Your task to perform on an android device: Add "macbook pro" to the cart on costco.com, then select checkout. Image 0: 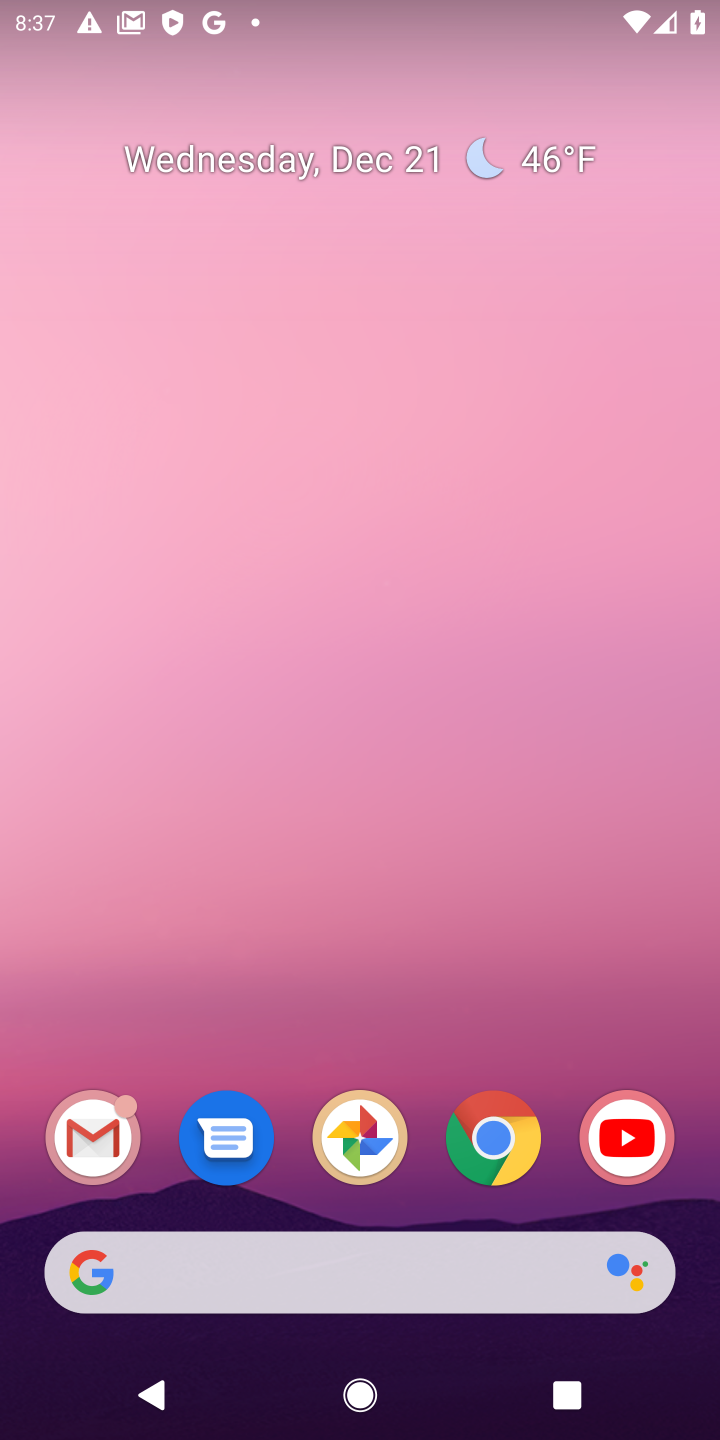
Step 0: click (496, 1144)
Your task to perform on an android device: Add "macbook pro" to the cart on costco.com, then select checkout. Image 1: 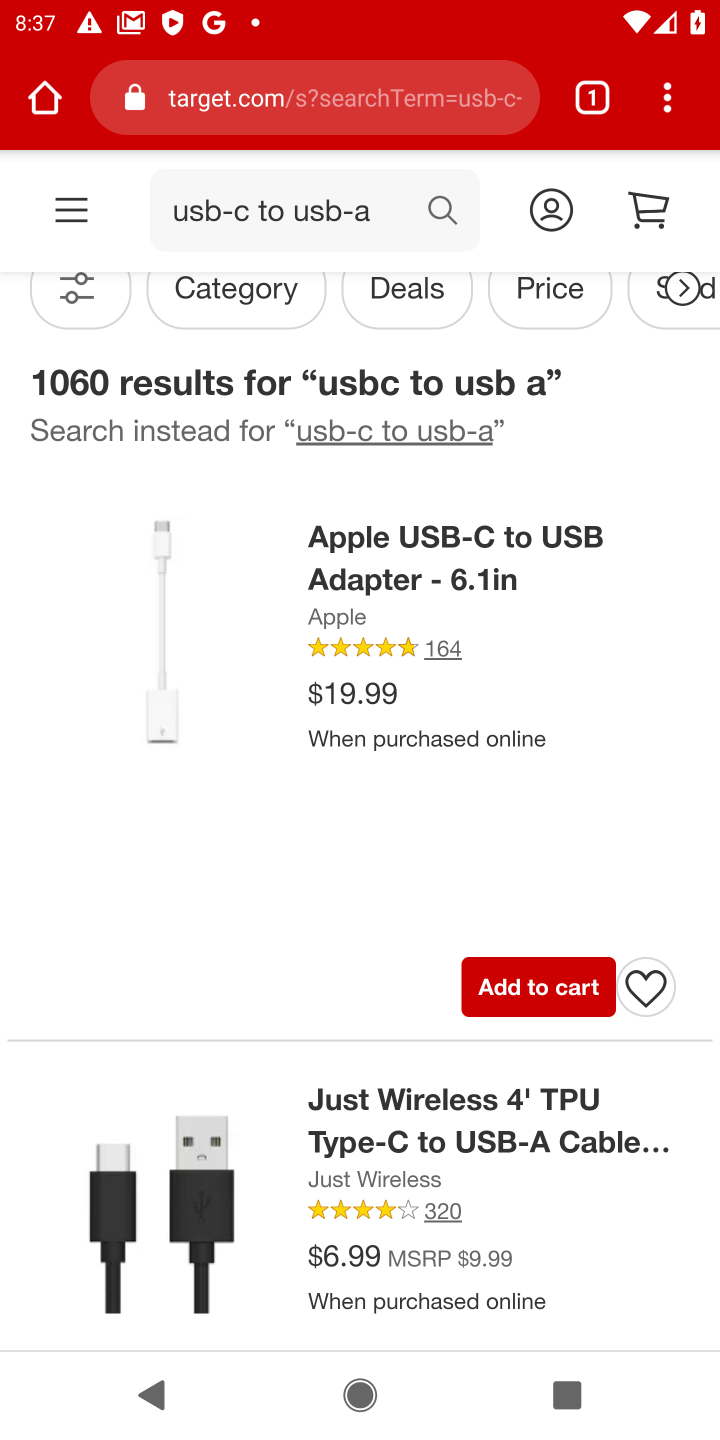
Step 1: click (291, 102)
Your task to perform on an android device: Add "macbook pro" to the cart on costco.com, then select checkout. Image 2: 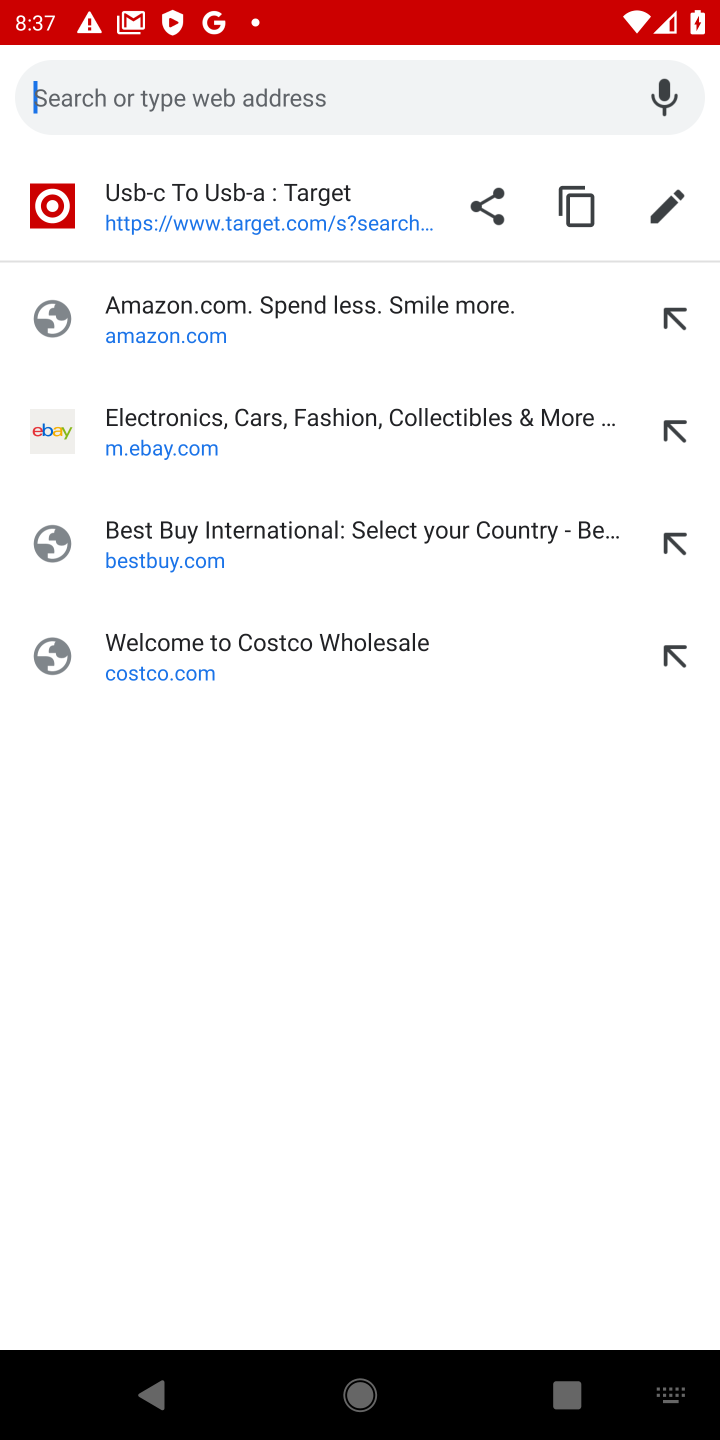
Step 2: click (124, 657)
Your task to perform on an android device: Add "macbook pro" to the cart on costco.com, then select checkout. Image 3: 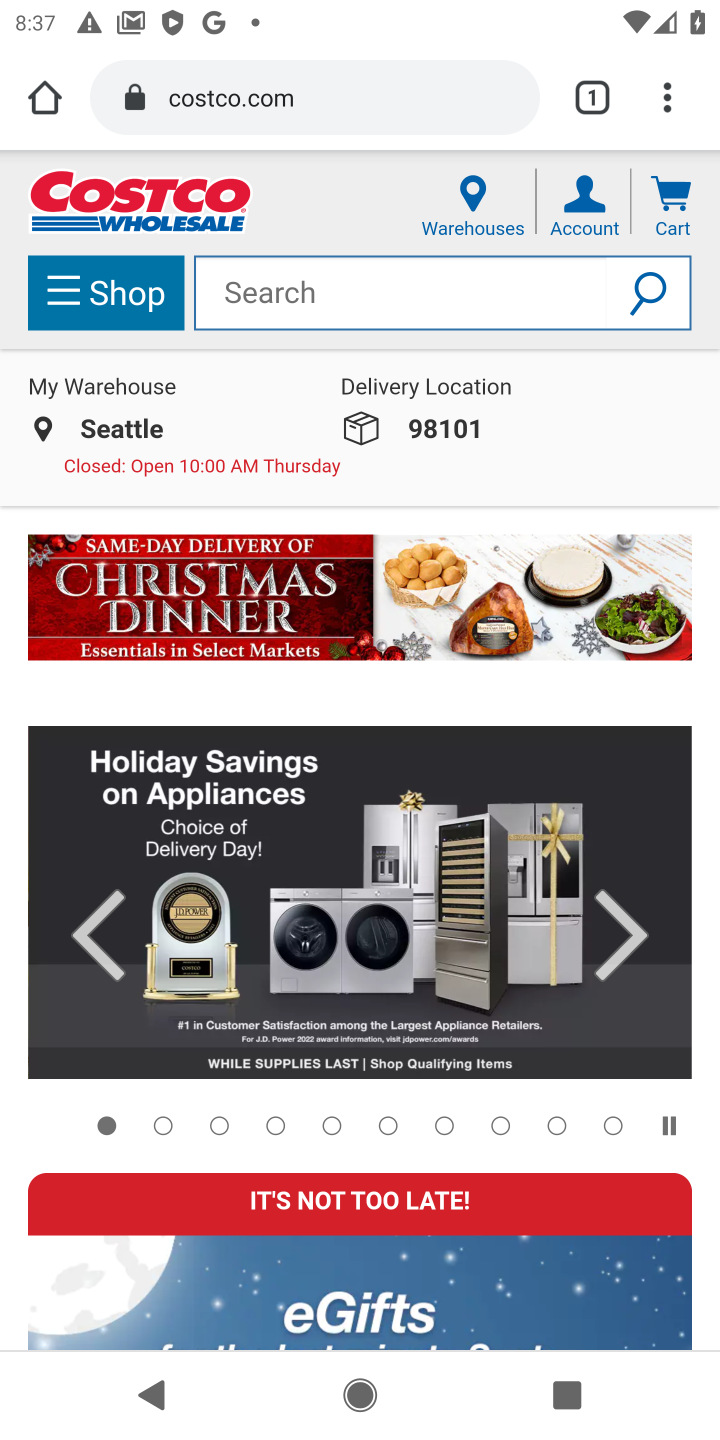
Step 3: click (262, 305)
Your task to perform on an android device: Add "macbook pro" to the cart on costco.com, then select checkout. Image 4: 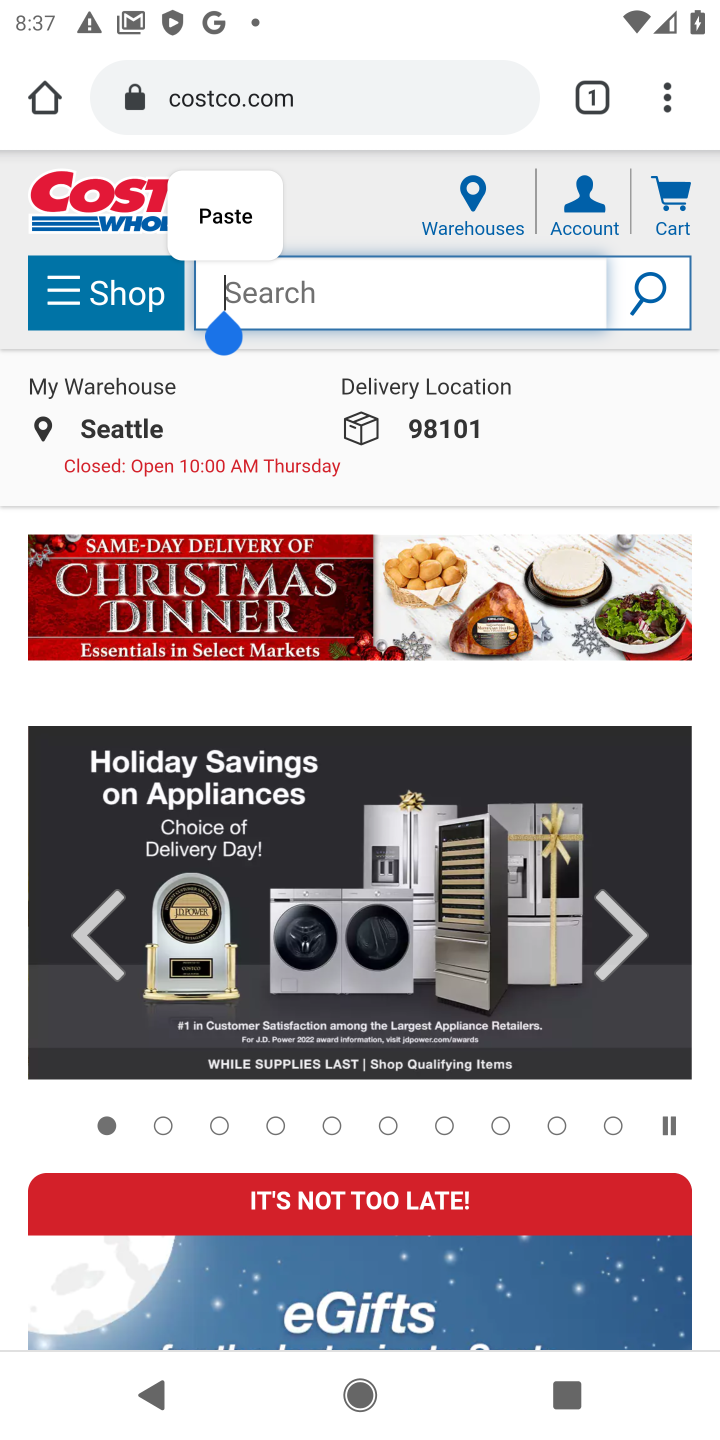
Step 4: click (262, 305)
Your task to perform on an android device: Add "macbook pro" to the cart on costco.com, then select checkout. Image 5: 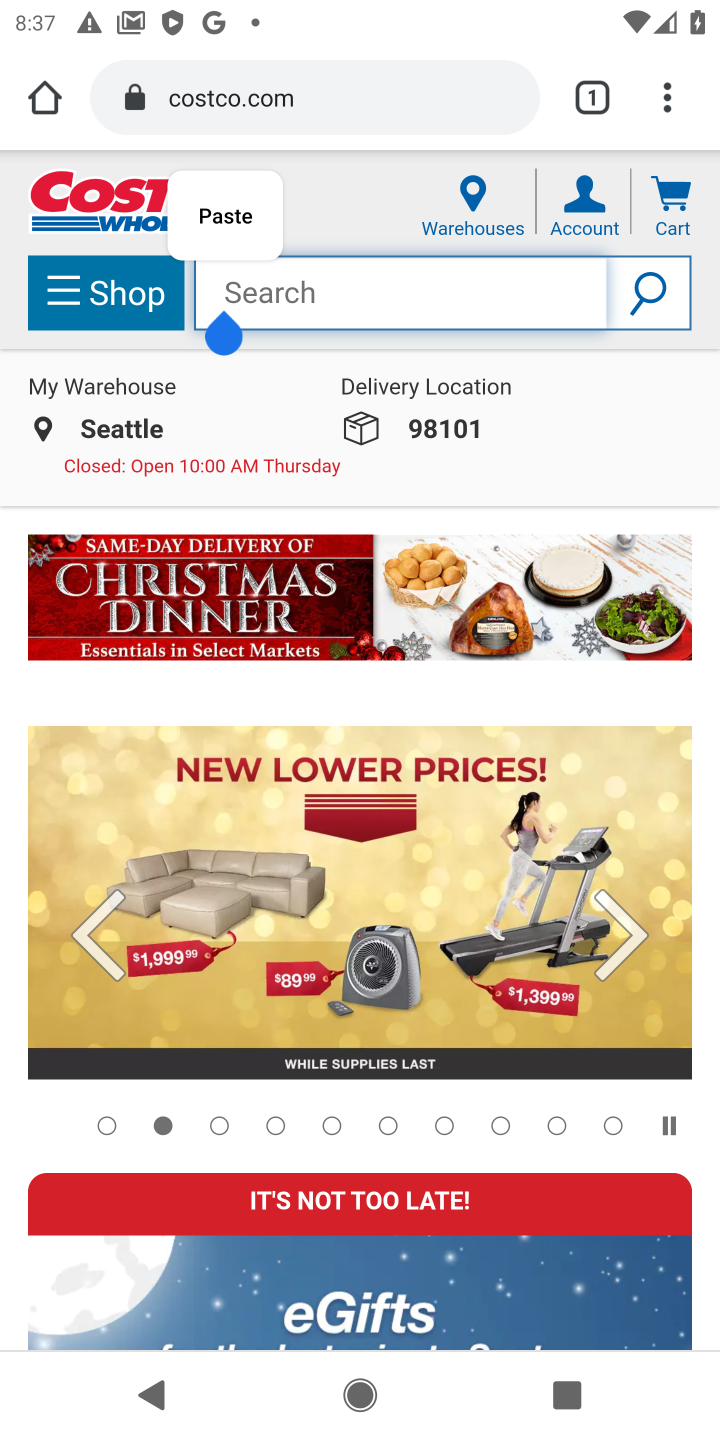
Step 5: type "macbook pro"
Your task to perform on an android device: Add "macbook pro" to the cart on costco.com, then select checkout. Image 6: 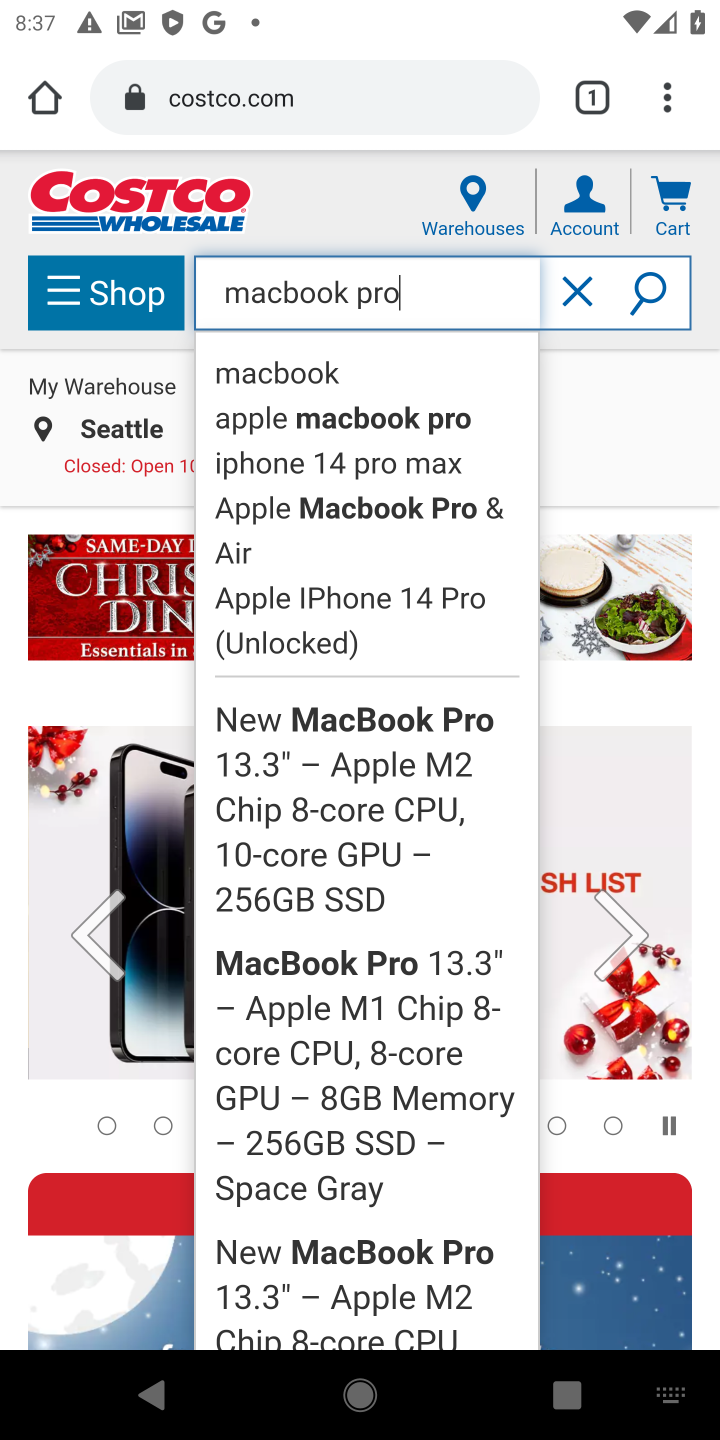
Step 6: click (647, 295)
Your task to perform on an android device: Add "macbook pro" to the cart on costco.com, then select checkout. Image 7: 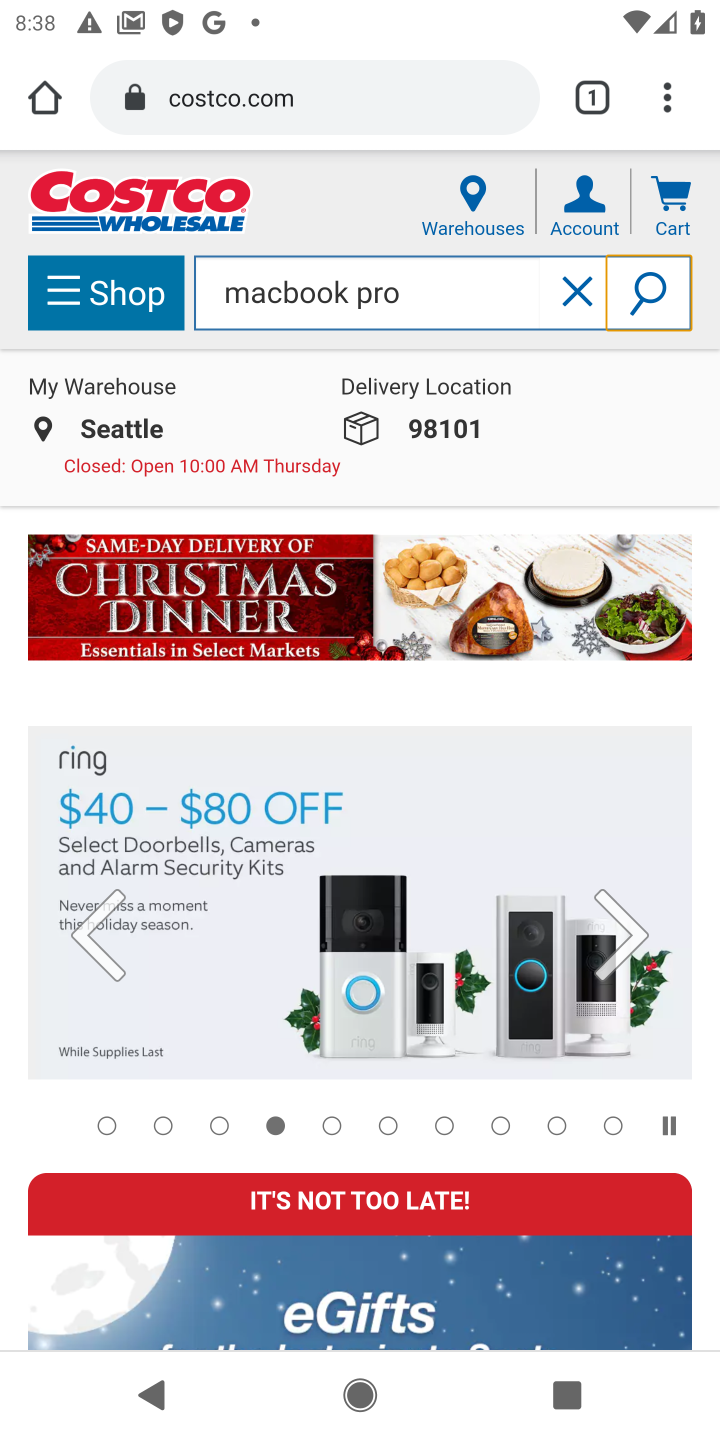
Step 7: click (637, 304)
Your task to perform on an android device: Add "macbook pro" to the cart on costco.com, then select checkout. Image 8: 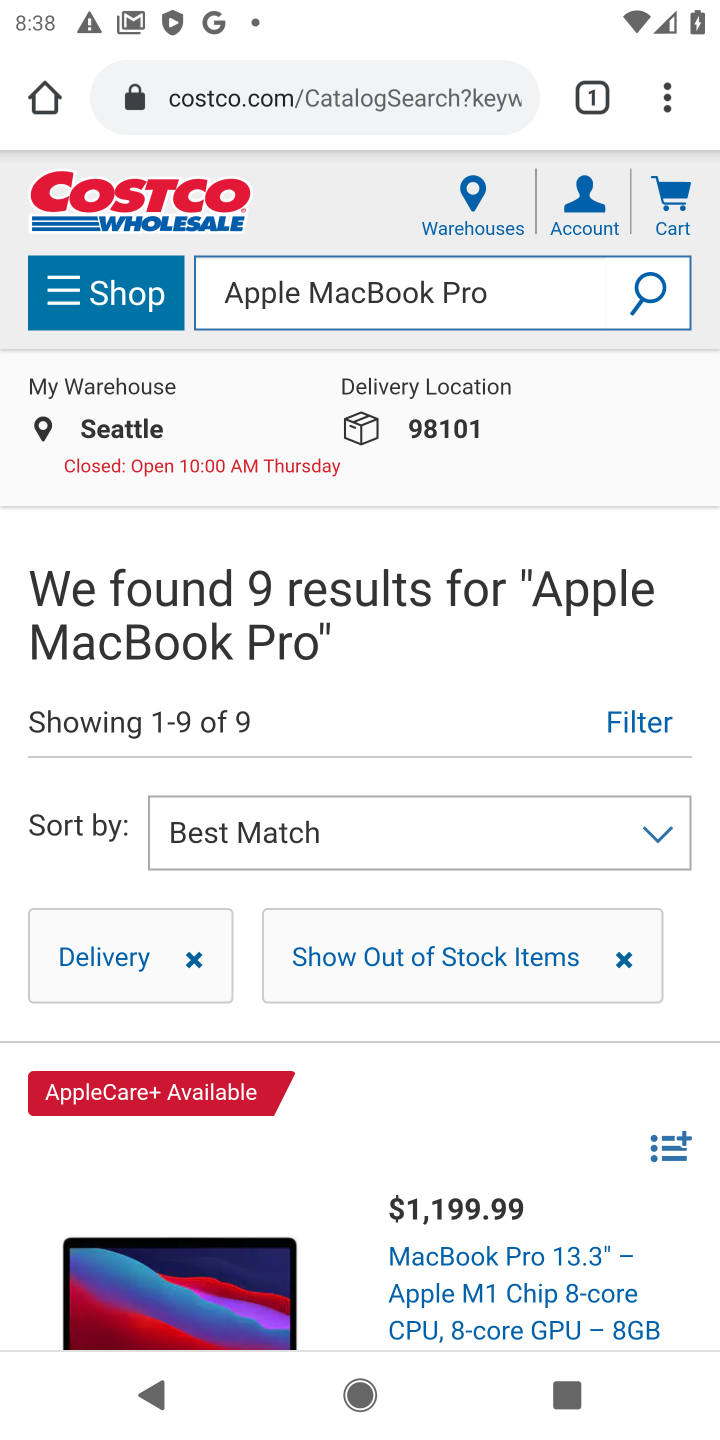
Step 8: drag from (370, 966) to (389, 583)
Your task to perform on an android device: Add "macbook pro" to the cart on costco.com, then select checkout. Image 9: 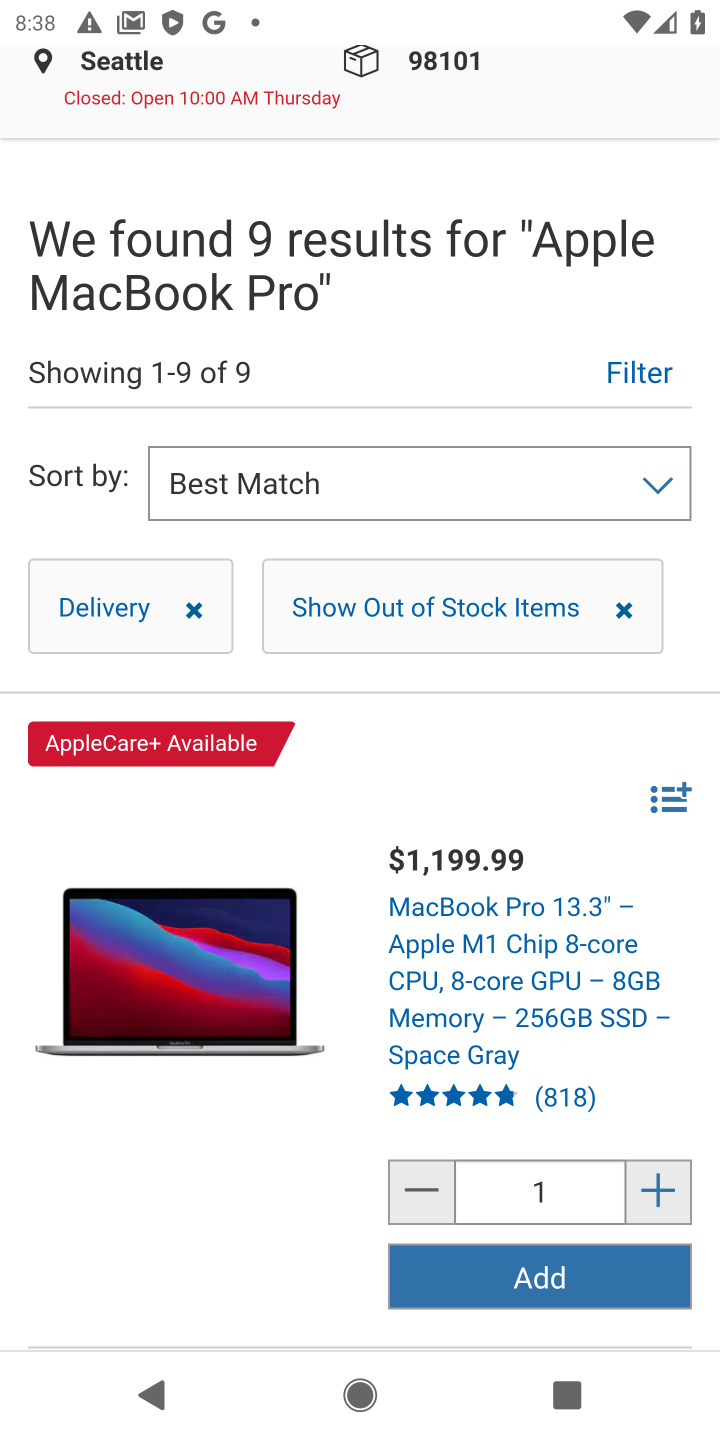
Step 9: click (504, 1295)
Your task to perform on an android device: Add "macbook pro" to the cart on costco.com, then select checkout. Image 10: 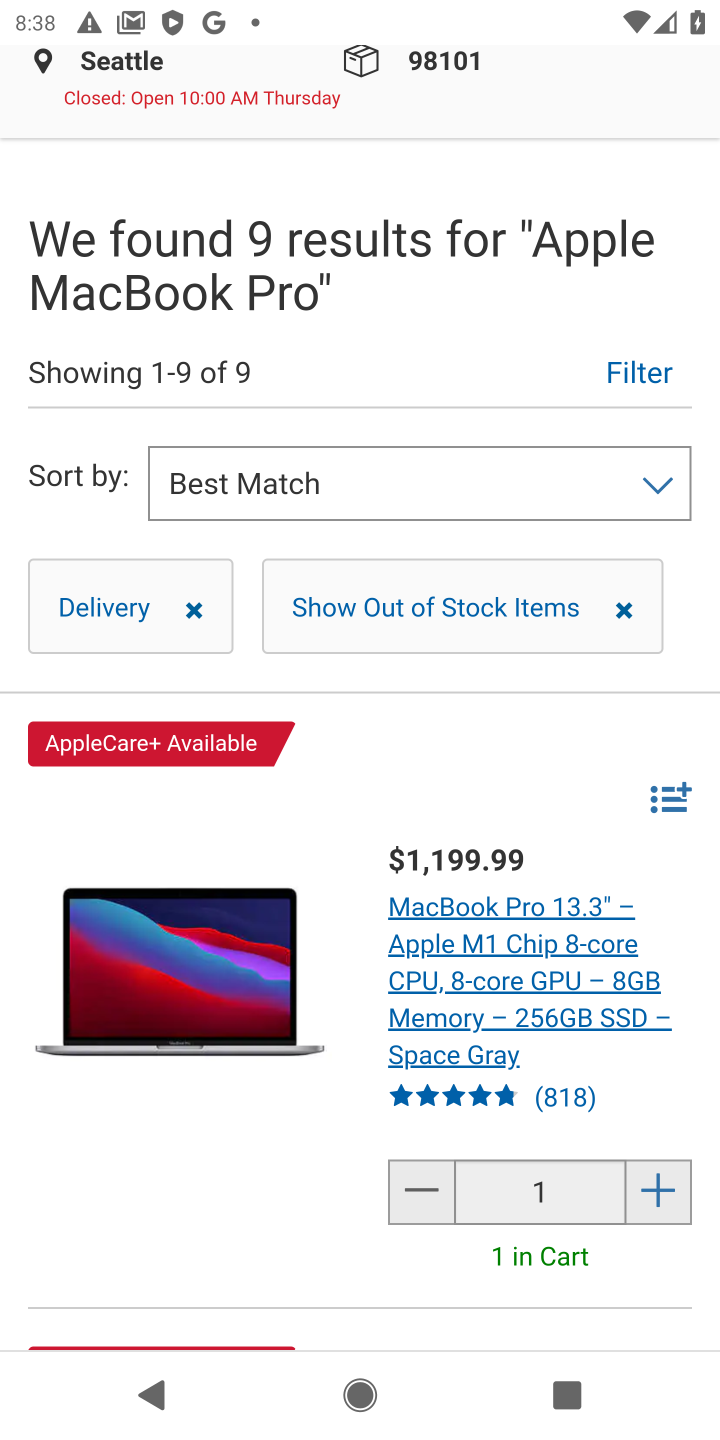
Step 10: drag from (498, 415) to (508, 845)
Your task to perform on an android device: Add "macbook pro" to the cart on costco.com, then select checkout. Image 11: 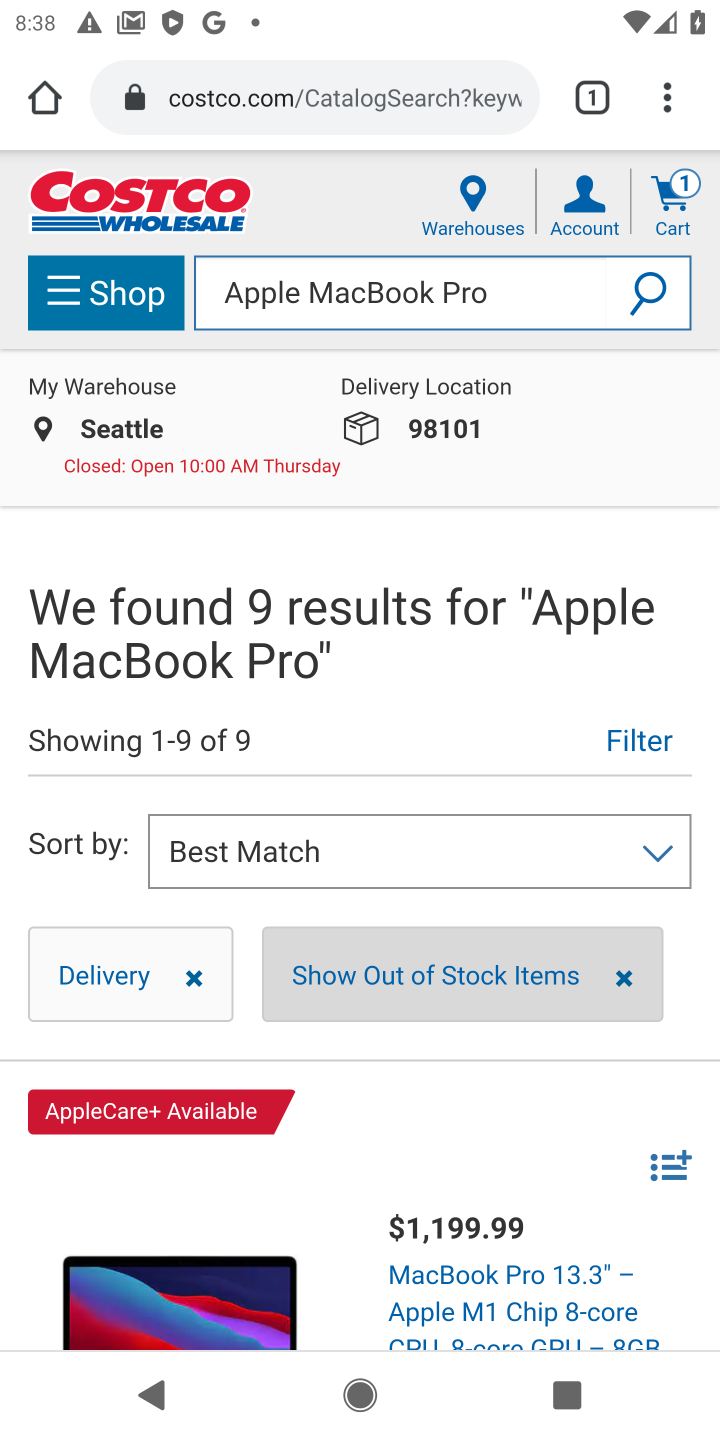
Step 11: click (673, 194)
Your task to perform on an android device: Add "macbook pro" to the cart on costco.com, then select checkout. Image 12: 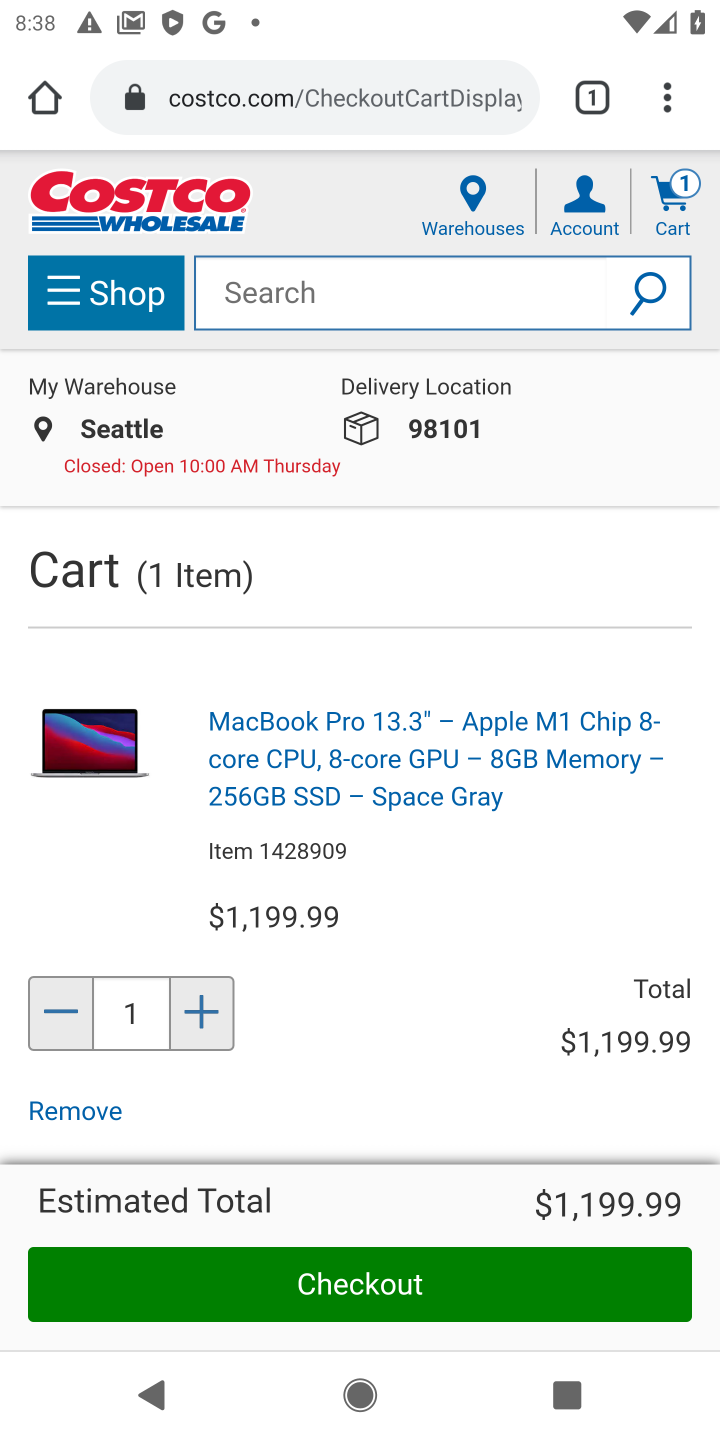
Step 12: click (296, 1284)
Your task to perform on an android device: Add "macbook pro" to the cart on costco.com, then select checkout. Image 13: 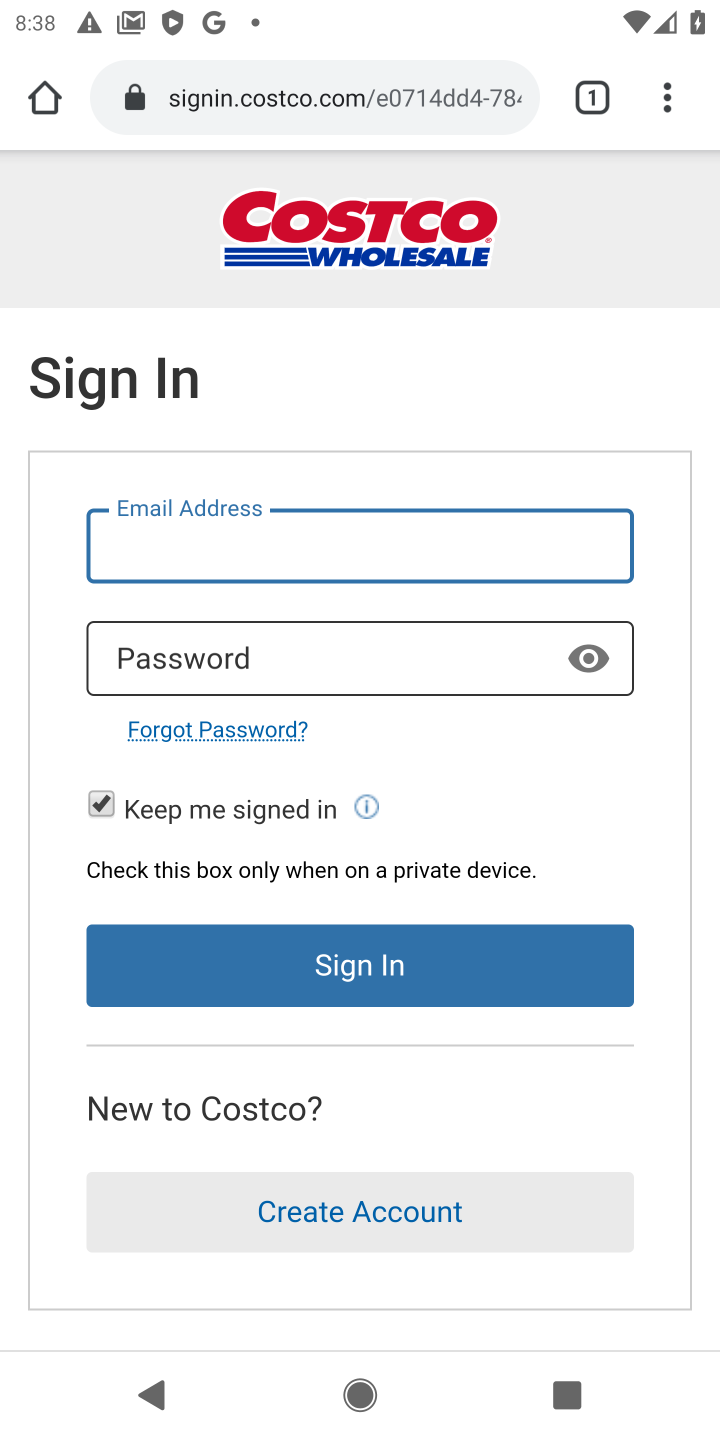
Step 13: task complete